Your task to perform on an android device: Open privacy settings Image 0: 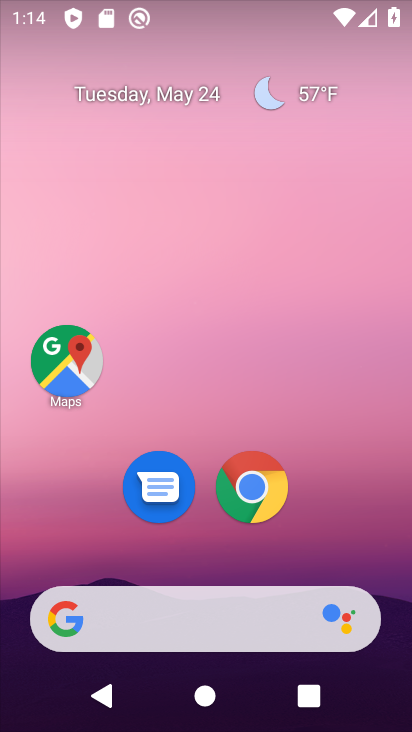
Step 0: drag from (218, 725) to (230, 114)
Your task to perform on an android device: Open privacy settings Image 1: 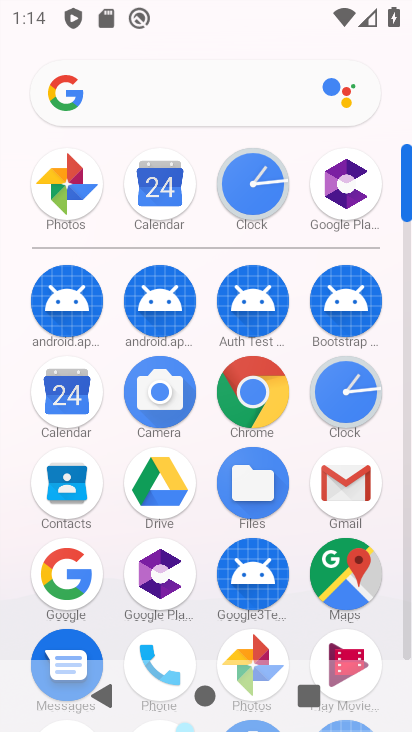
Step 1: drag from (209, 627) to (207, 329)
Your task to perform on an android device: Open privacy settings Image 2: 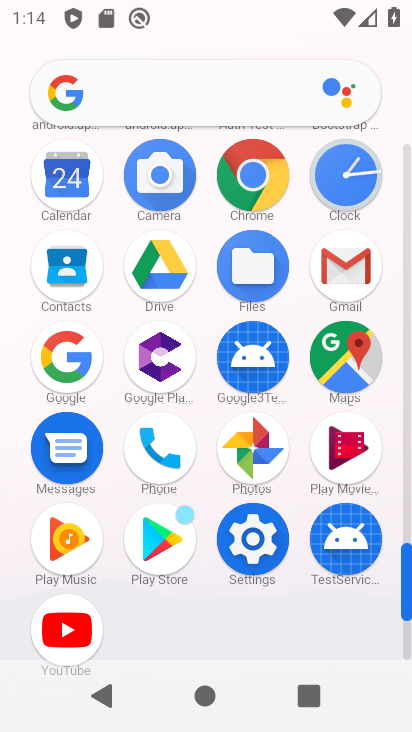
Step 2: click (255, 543)
Your task to perform on an android device: Open privacy settings Image 3: 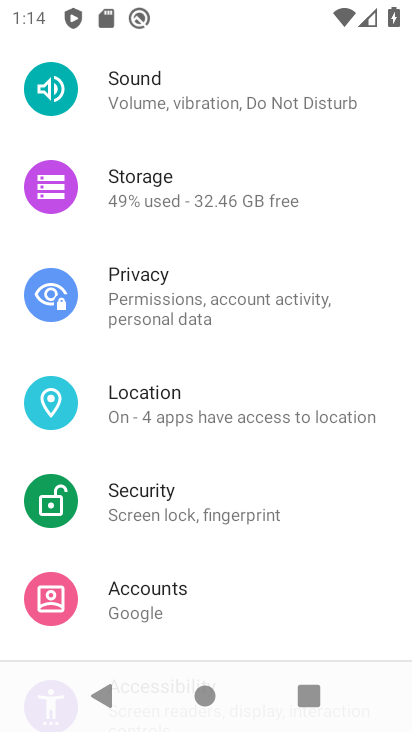
Step 3: click (137, 283)
Your task to perform on an android device: Open privacy settings Image 4: 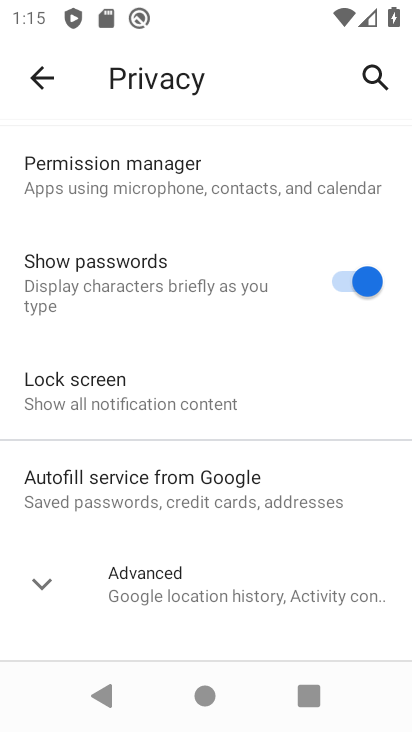
Step 4: task complete